Your task to perform on an android device: turn off location history Image 0: 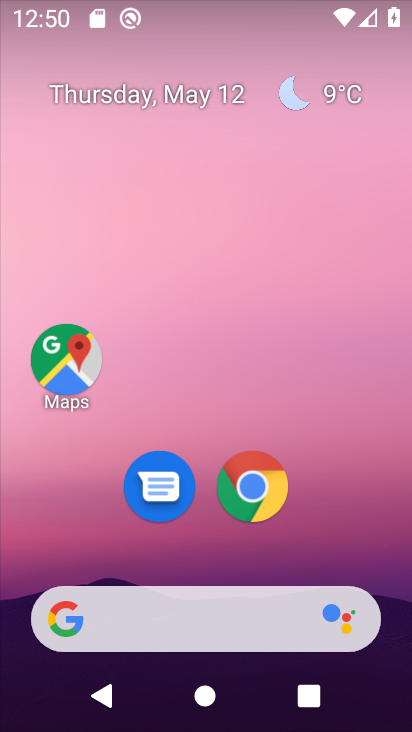
Step 0: drag from (196, 585) to (218, 247)
Your task to perform on an android device: turn off location history Image 1: 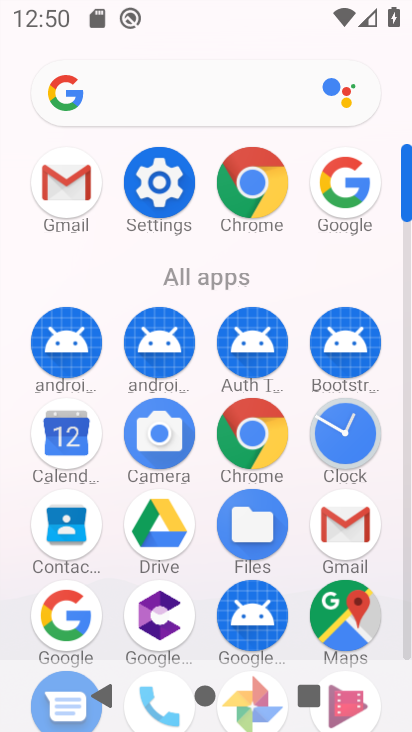
Step 1: click (168, 174)
Your task to perform on an android device: turn off location history Image 2: 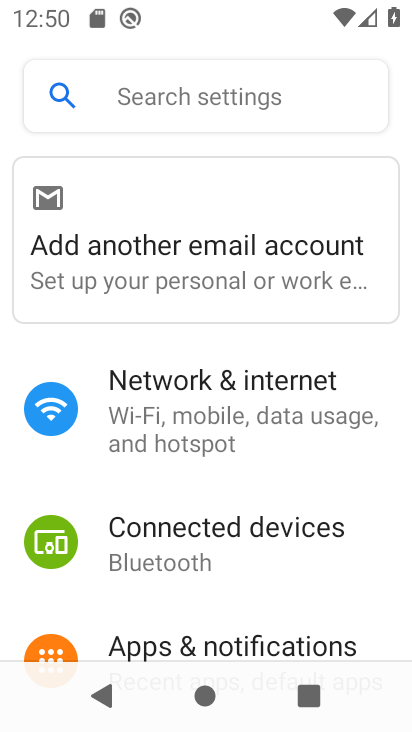
Step 2: drag from (215, 644) to (215, 317)
Your task to perform on an android device: turn off location history Image 3: 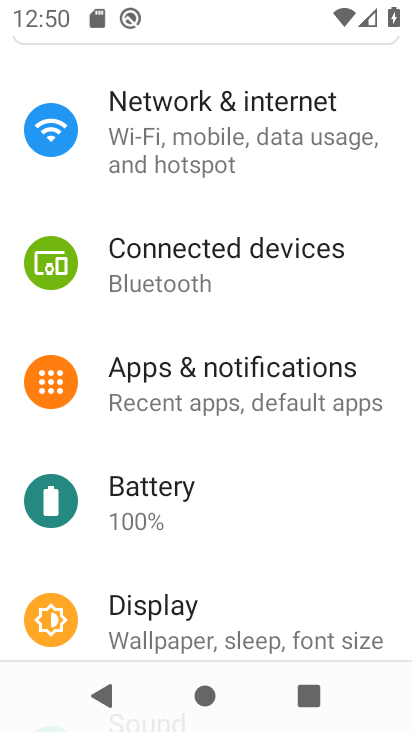
Step 3: drag from (212, 634) to (214, 340)
Your task to perform on an android device: turn off location history Image 4: 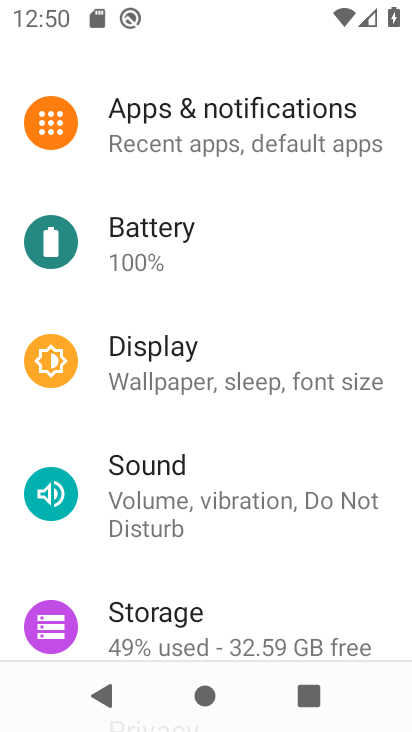
Step 4: drag from (186, 601) to (203, 302)
Your task to perform on an android device: turn off location history Image 5: 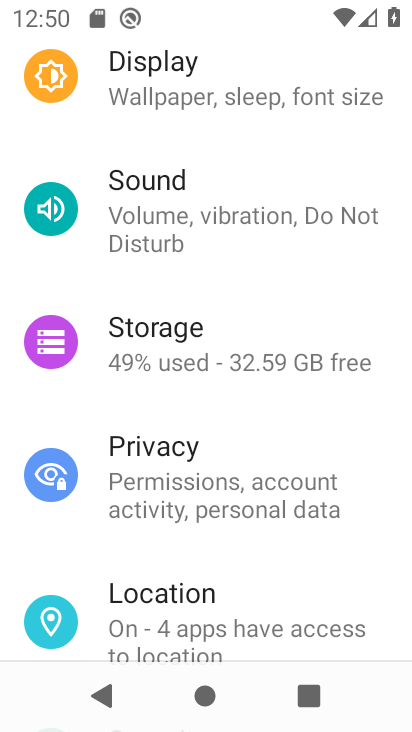
Step 5: click (182, 606)
Your task to perform on an android device: turn off location history Image 6: 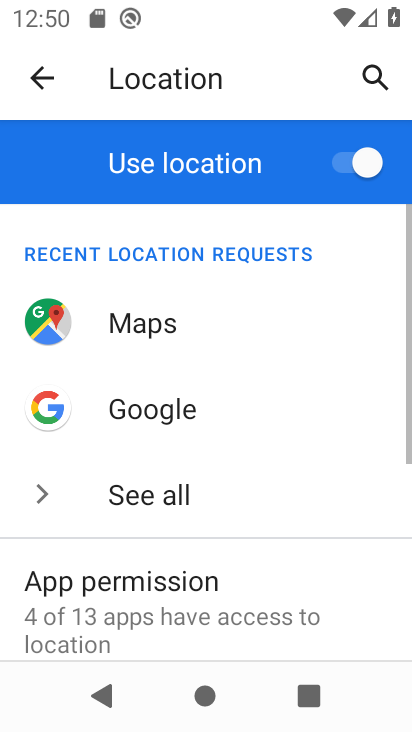
Step 6: drag from (184, 594) to (216, 386)
Your task to perform on an android device: turn off location history Image 7: 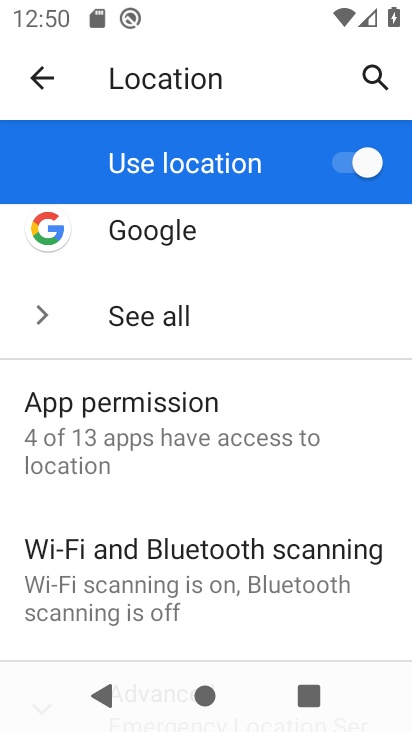
Step 7: drag from (110, 583) to (163, 385)
Your task to perform on an android device: turn off location history Image 8: 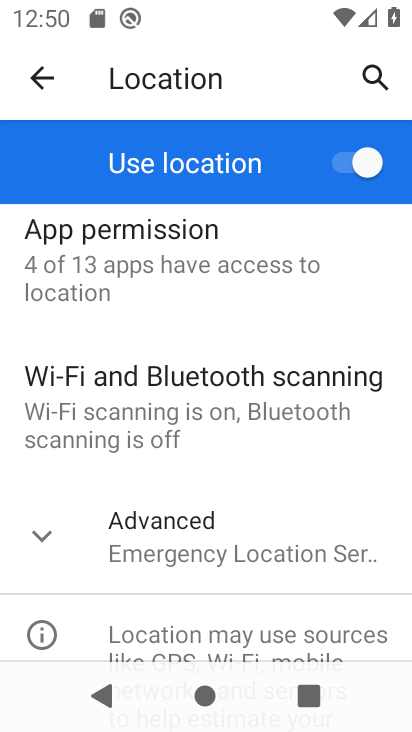
Step 8: drag from (160, 547) to (203, 337)
Your task to perform on an android device: turn off location history Image 9: 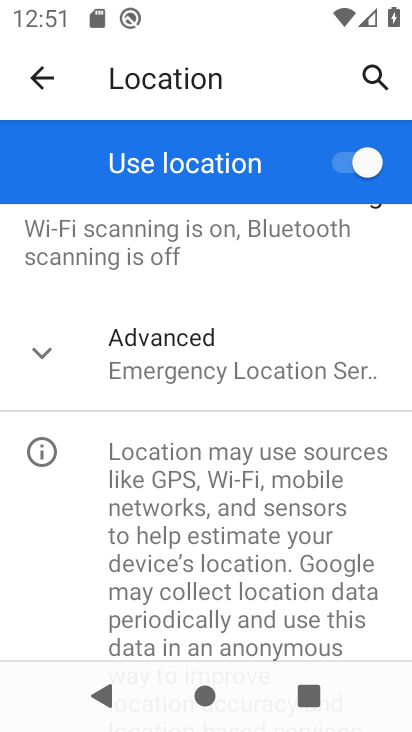
Step 9: click (203, 356)
Your task to perform on an android device: turn off location history Image 10: 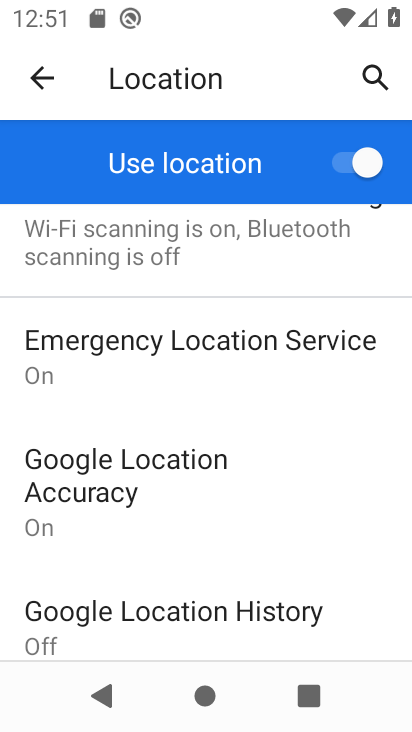
Step 10: click (200, 623)
Your task to perform on an android device: turn off location history Image 11: 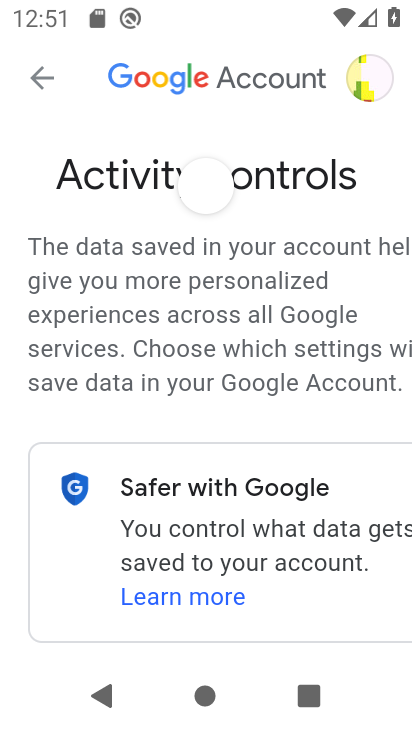
Step 11: drag from (193, 631) to (194, 348)
Your task to perform on an android device: turn off location history Image 12: 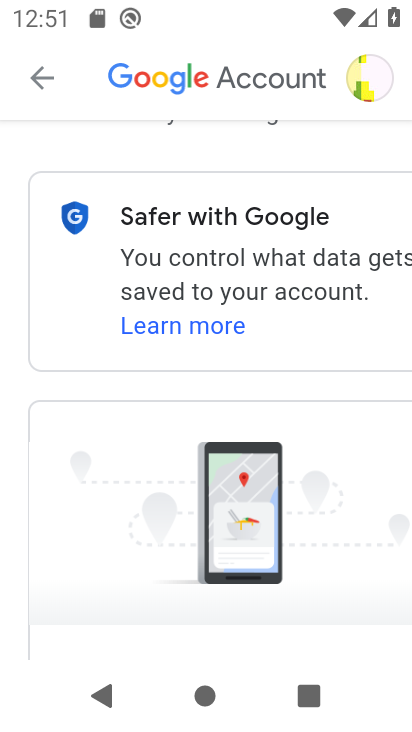
Step 12: drag from (211, 640) to (277, 279)
Your task to perform on an android device: turn off location history Image 13: 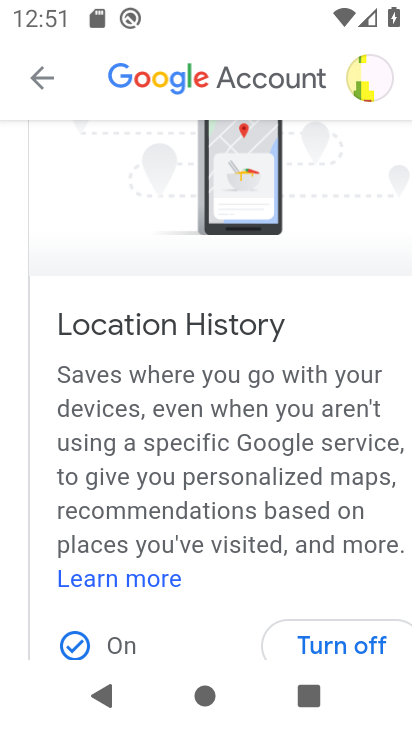
Step 13: drag from (235, 604) to (273, 339)
Your task to perform on an android device: turn off location history Image 14: 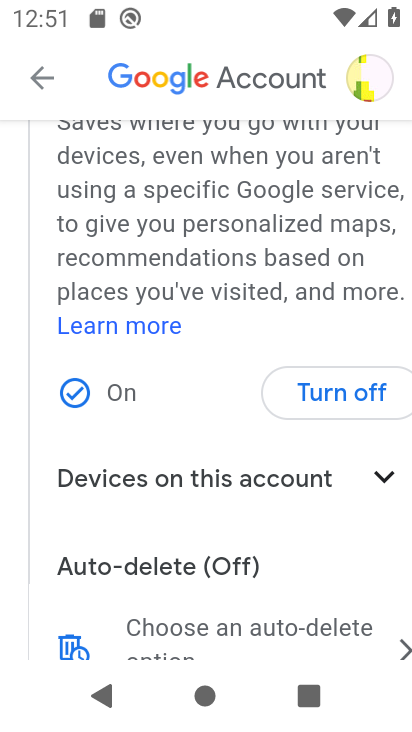
Step 14: click (331, 398)
Your task to perform on an android device: turn off location history Image 15: 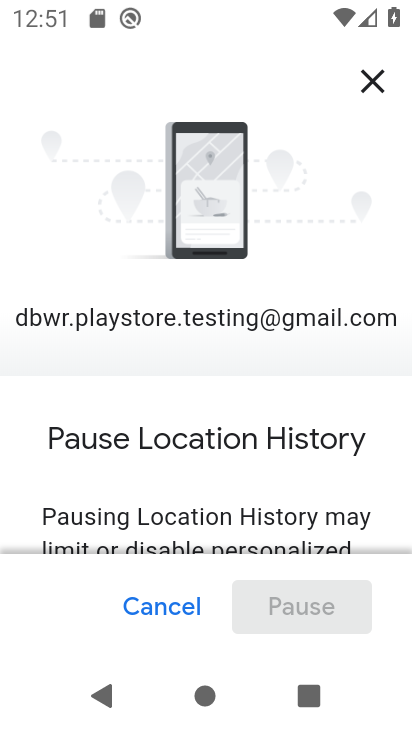
Step 15: drag from (287, 538) to (364, 255)
Your task to perform on an android device: turn off location history Image 16: 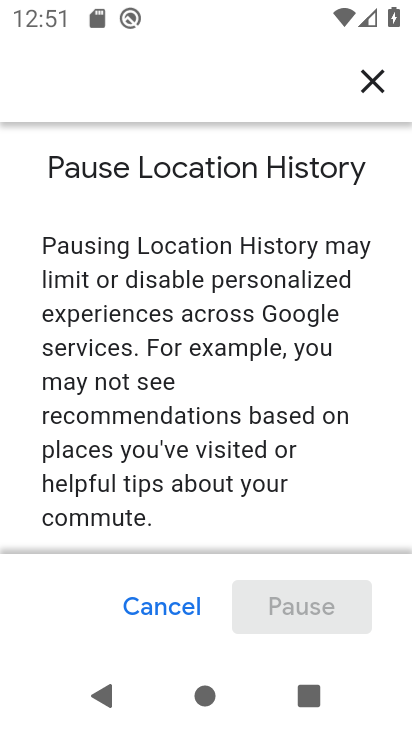
Step 16: drag from (243, 546) to (349, 231)
Your task to perform on an android device: turn off location history Image 17: 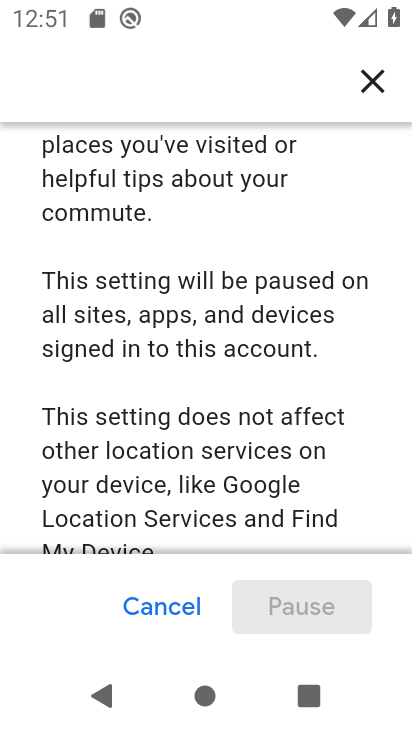
Step 17: drag from (285, 509) to (357, 231)
Your task to perform on an android device: turn off location history Image 18: 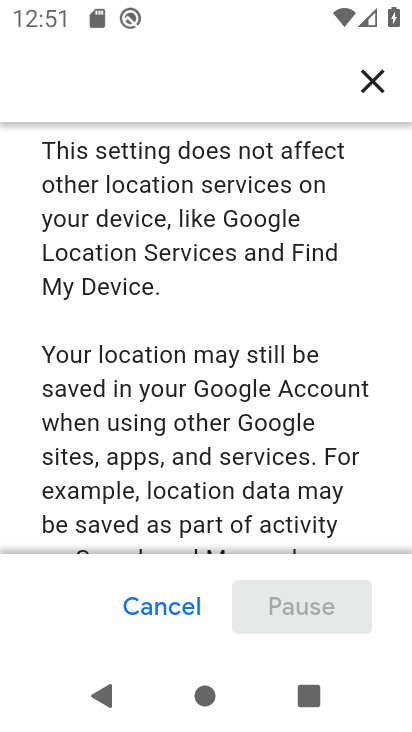
Step 18: drag from (274, 529) to (382, 230)
Your task to perform on an android device: turn off location history Image 19: 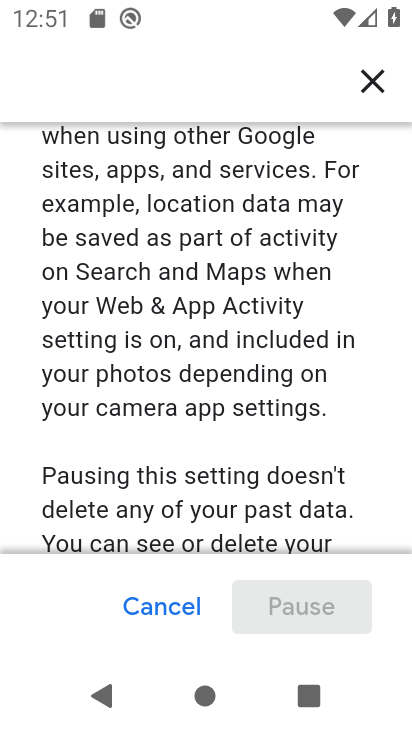
Step 19: drag from (224, 545) to (338, 180)
Your task to perform on an android device: turn off location history Image 20: 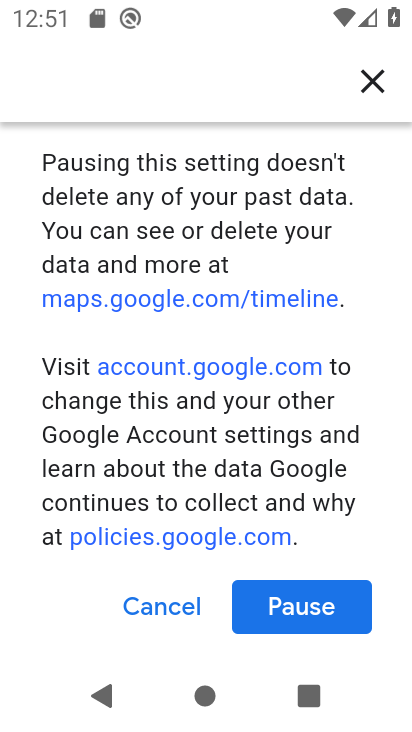
Step 20: click (265, 607)
Your task to perform on an android device: turn off location history Image 21: 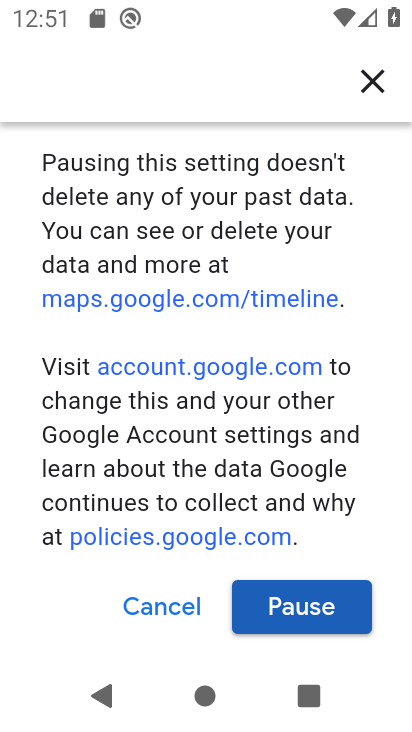
Step 21: click (269, 603)
Your task to perform on an android device: turn off location history Image 22: 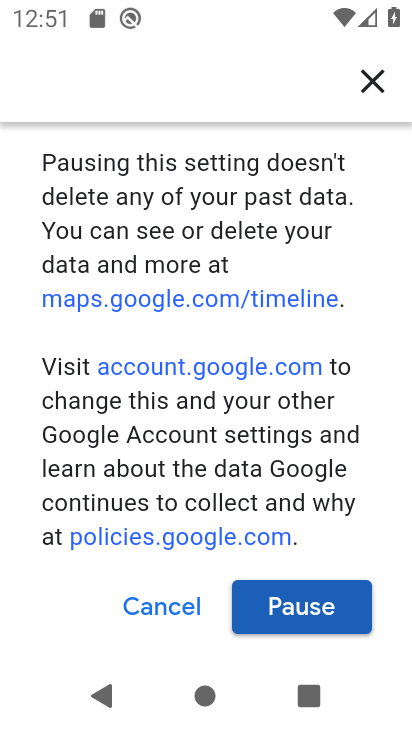
Step 22: click (269, 603)
Your task to perform on an android device: turn off location history Image 23: 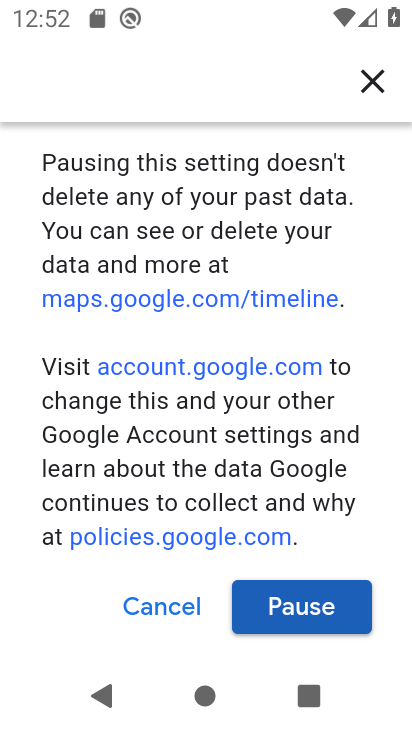
Step 23: click (286, 617)
Your task to perform on an android device: turn off location history Image 24: 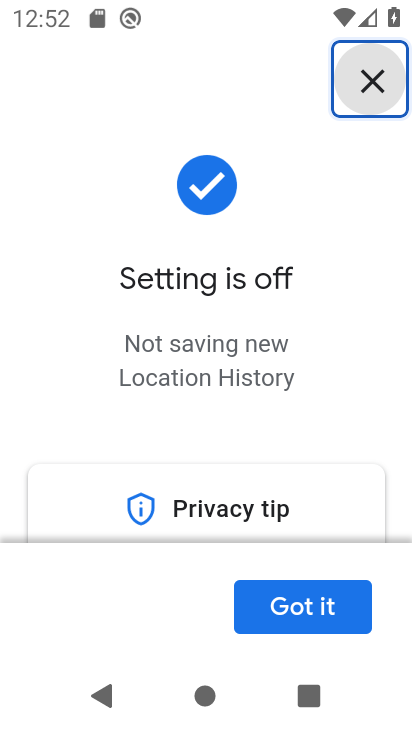
Step 24: click (286, 617)
Your task to perform on an android device: turn off location history Image 25: 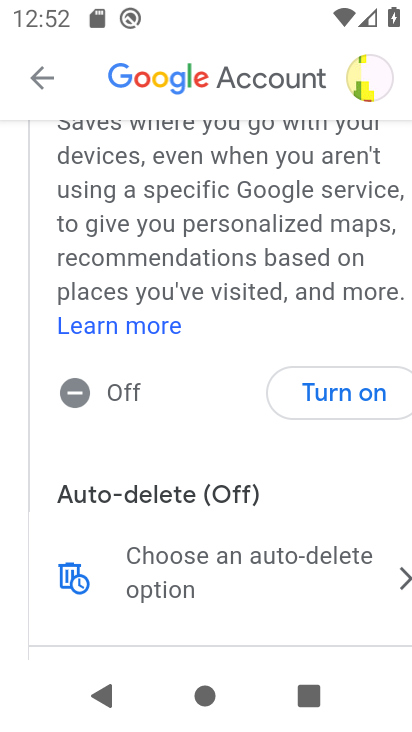
Step 25: task complete